Your task to perform on an android device: Open the calendar app, open the side menu, and click the "Day" option Image 0: 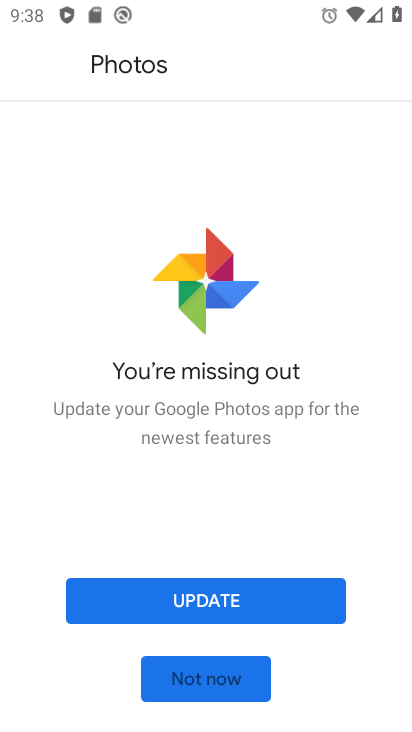
Step 0: press home button
Your task to perform on an android device: Open the calendar app, open the side menu, and click the "Day" option Image 1: 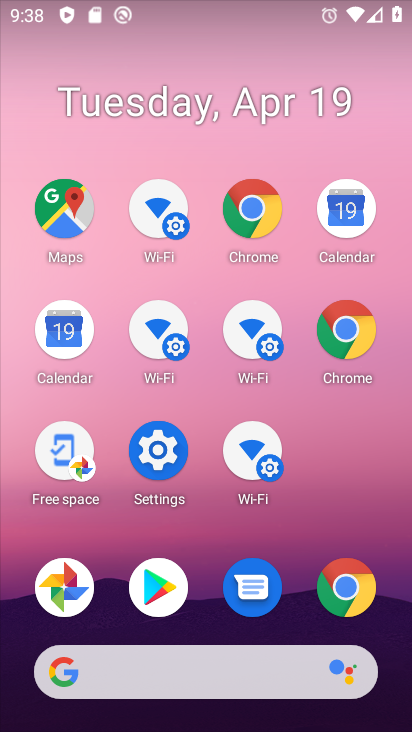
Step 1: click (56, 339)
Your task to perform on an android device: Open the calendar app, open the side menu, and click the "Day" option Image 2: 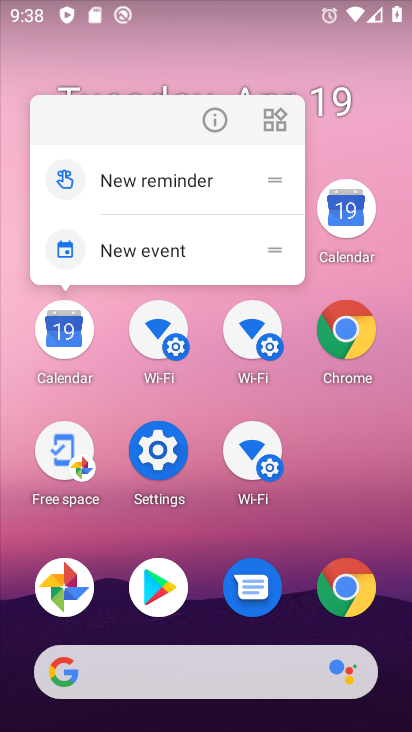
Step 2: click (56, 339)
Your task to perform on an android device: Open the calendar app, open the side menu, and click the "Day" option Image 3: 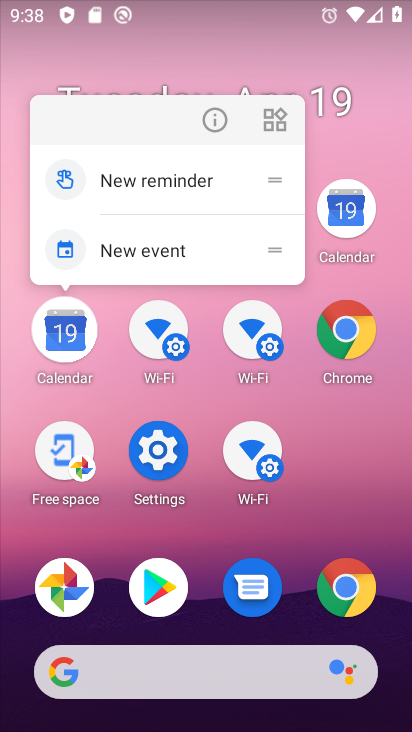
Step 3: click (56, 339)
Your task to perform on an android device: Open the calendar app, open the side menu, and click the "Day" option Image 4: 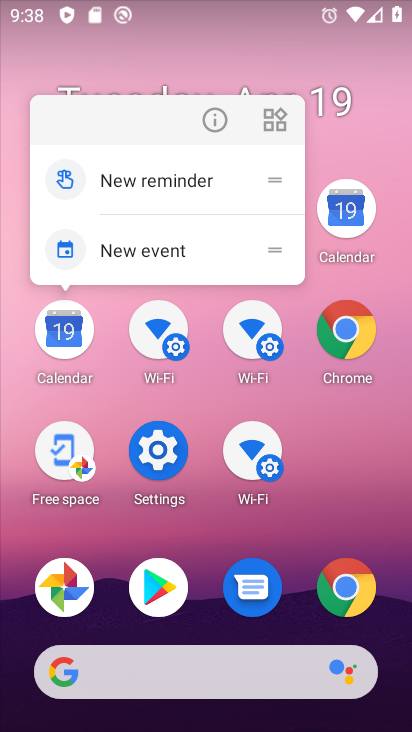
Step 4: click (352, 205)
Your task to perform on an android device: Open the calendar app, open the side menu, and click the "Day" option Image 5: 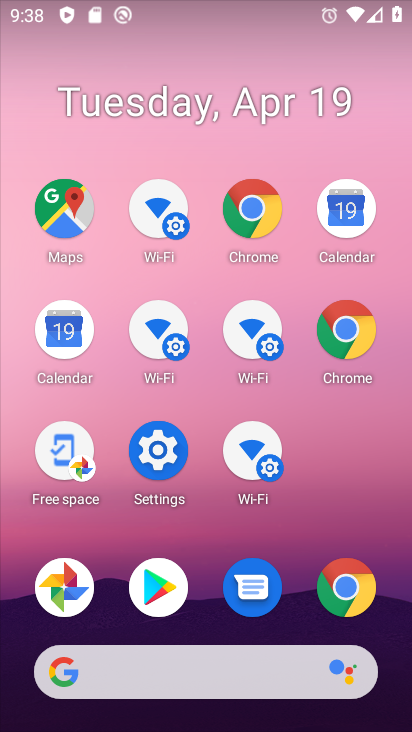
Step 5: click (351, 206)
Your task to perform on an android device: Open the calendar app, open the side menu, and click the "Day" option Image 6: 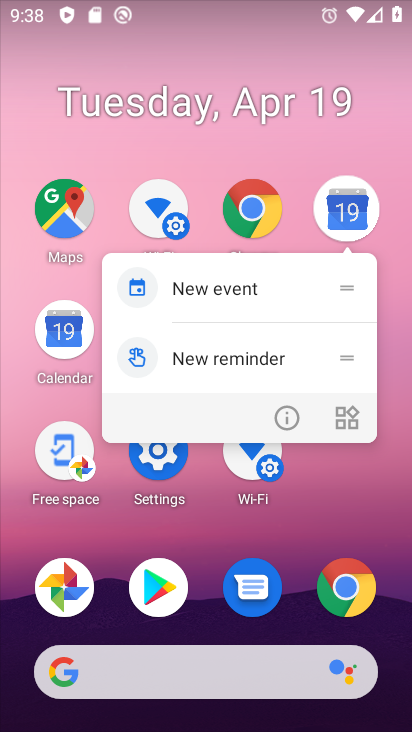
Step 6: click (351, 207)
Your task to perform on an android device: Open the calendar app, open the side menu, and click the "Day" option Image 7: 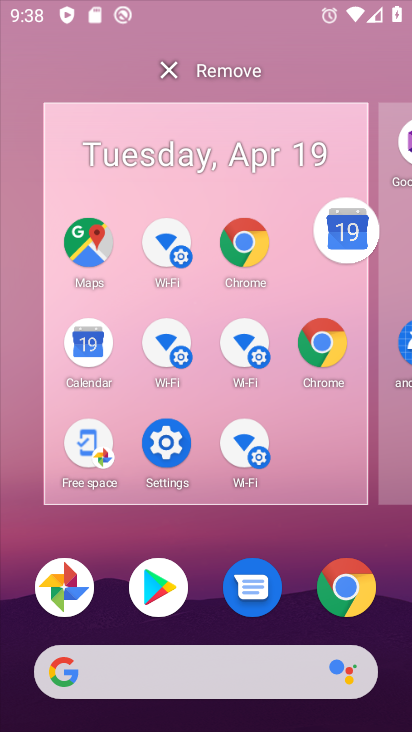
Step 7: click (351, 229)
Your task to perform on an android device: Open the calendar app, open the side menu, and click the "Day" option Image 8: 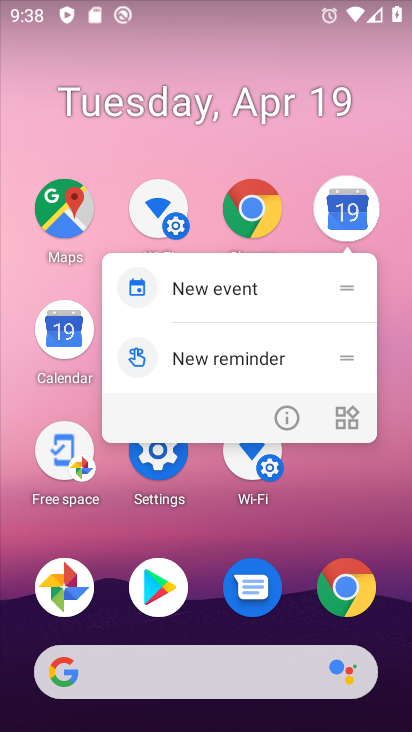
Step 8: click (351, 229)
Your task to perform on an android device: Open the calendar app, open the side menu, and click the "Day" option Image 9: 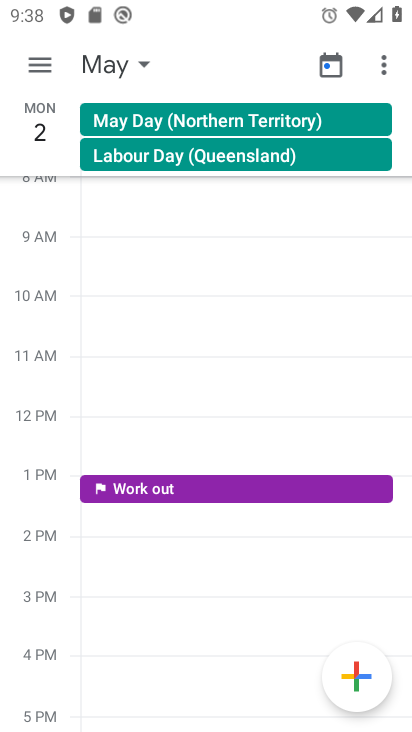
Step 9: click (39, 73)
Your task to perform on an android device: Open the calendar app, open the side menu, and click the "Day" option Image 10: 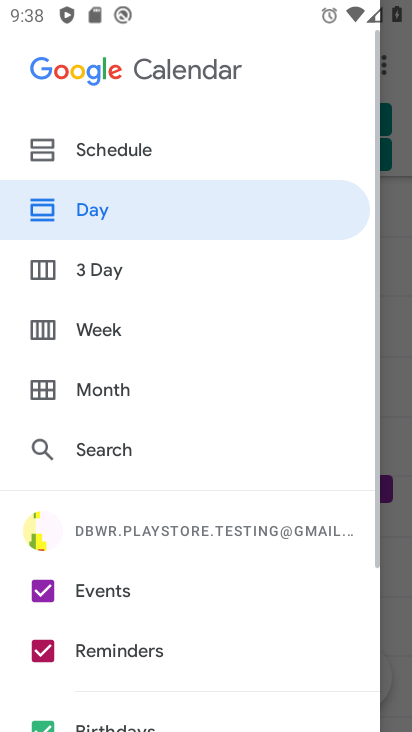
Step 10: click (107, 219)
Your task to perform on an android device: Open the calendar app, open the side menu, and click the "Day" option Image 11: 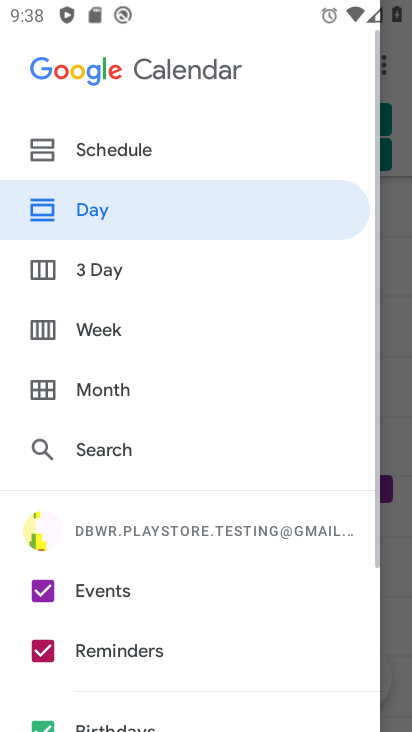
Step 11: task complete